Your task to perform on an android device: check storage Image 0: 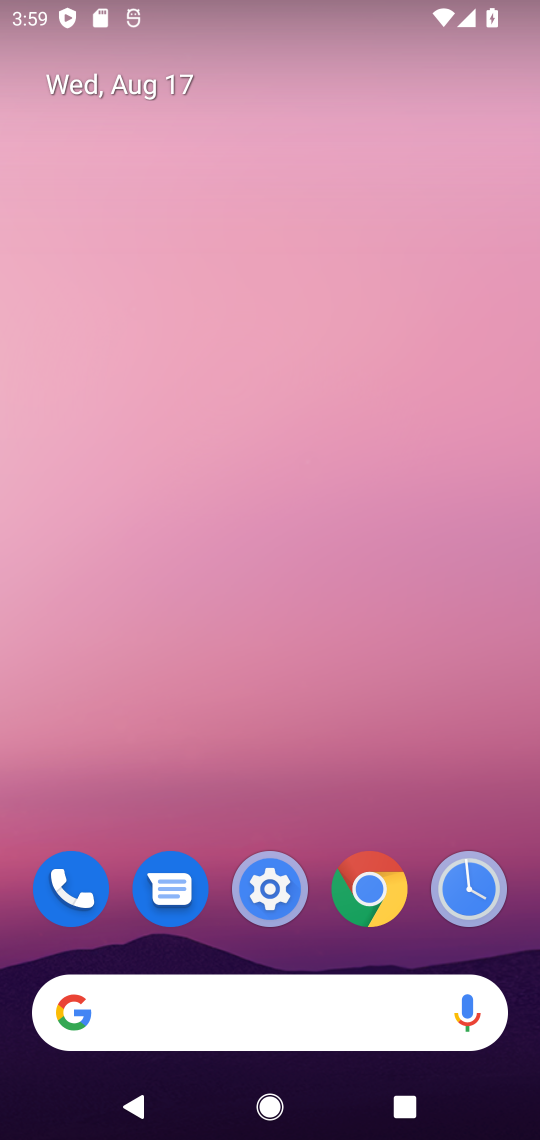
Step 0: click (268, 892)
Your task to perform on an android device: check storage Image 1: 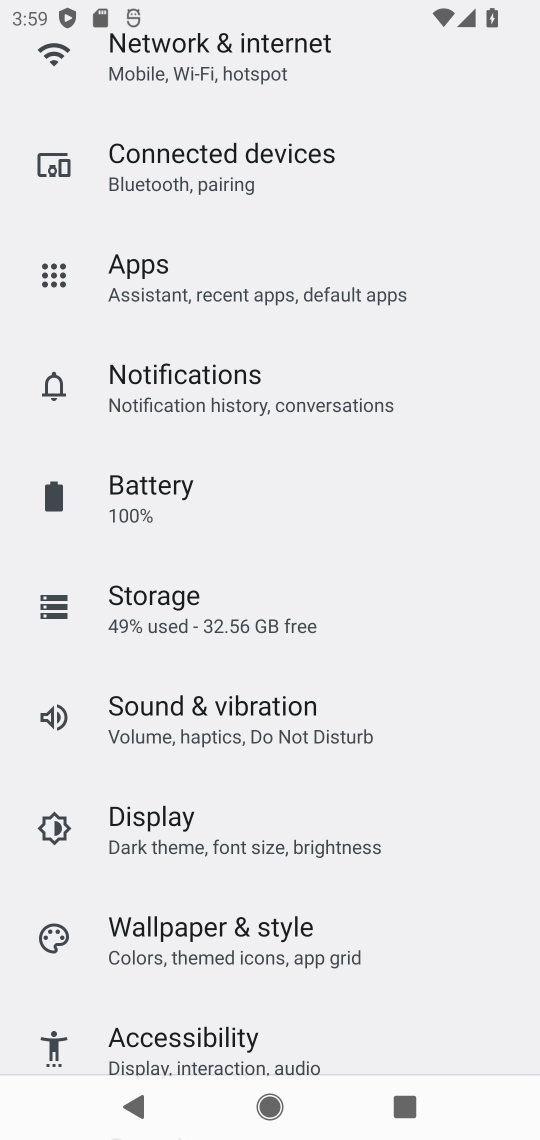
Step 1: click (157, 593)
Your task to perform on an android device: check storage Image 2: 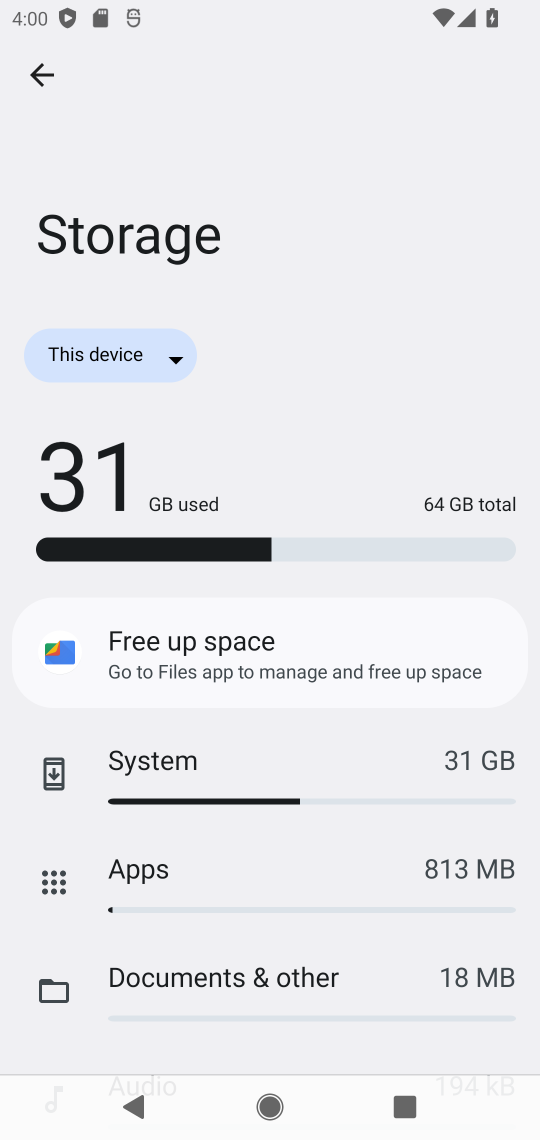
Step 2: task complete